Your task to perform on an android device: Go to Google Image 0: 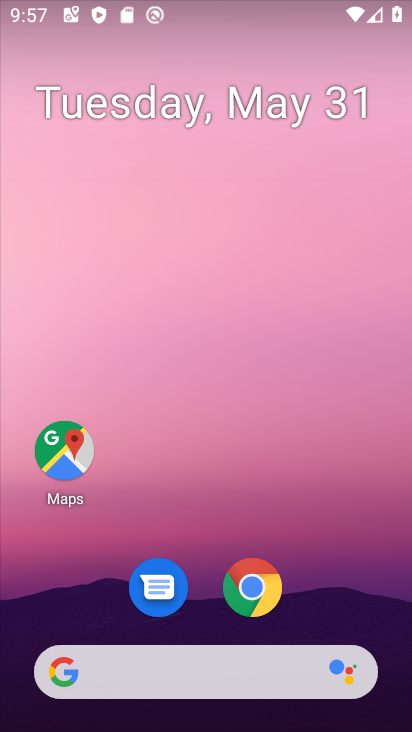
Step 0: drag from (209, 614) to (200, 136)
Your task to perform on an android device: Go to Google Image 1: 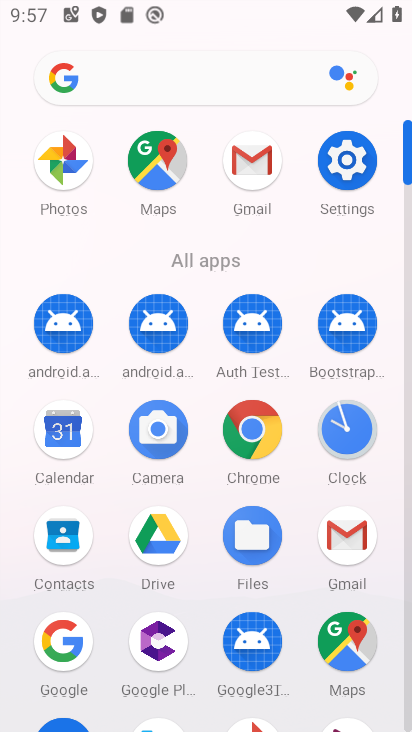
Step 1: click (68, 634)
Your task to perform on an android device: Go to Google Image 2: 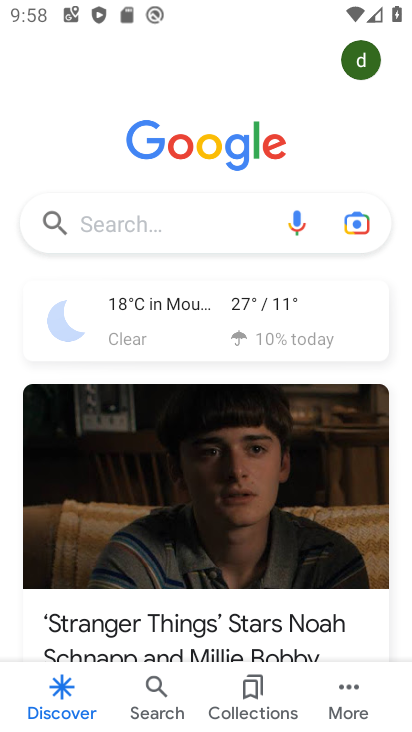
Step 2: task complete